Your task to perform on an android device: turn on sleep mode Image 0: 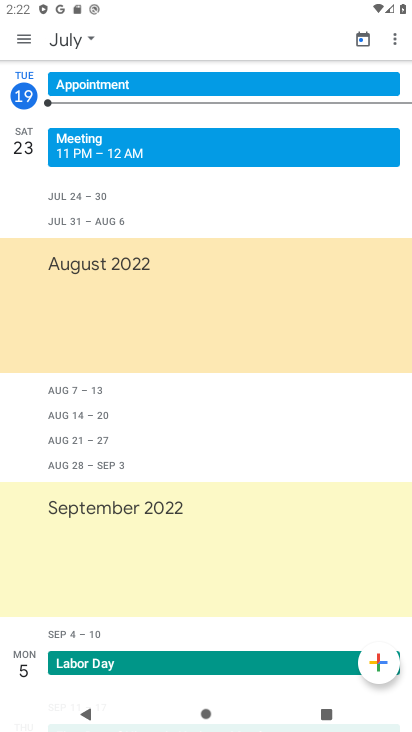
Step 0: press home button
Your task to perform on an android device: turn on sleep mode Image 1: 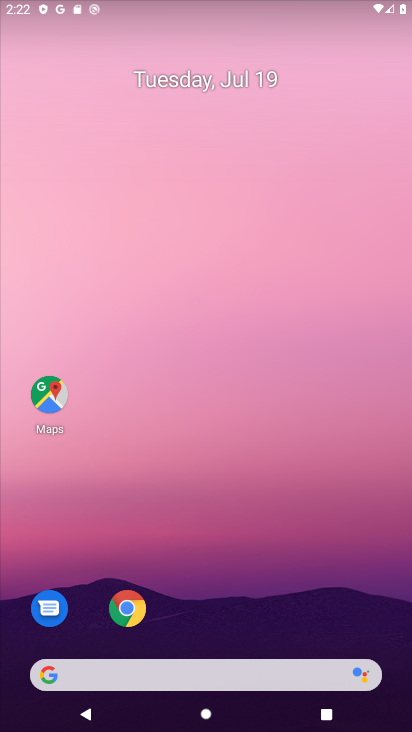
Step 1: drag from (292, 633) to (256, 114)
Your task to perform on an android device: turn on sleep mode Image 2: 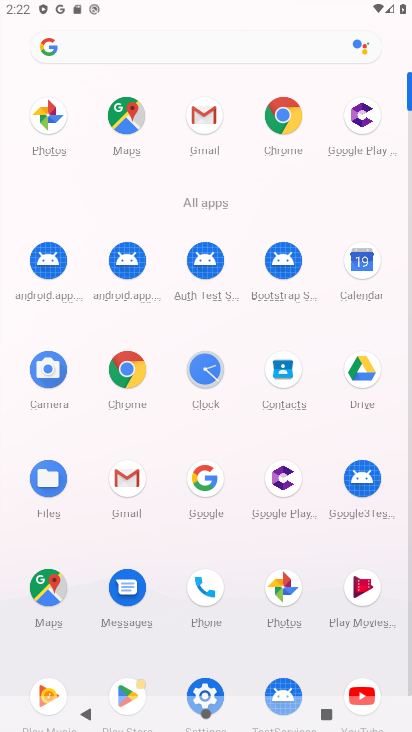
Step 2: click (203, 685)
Your task to perform on an android device: turn on sleep mode Image 3: 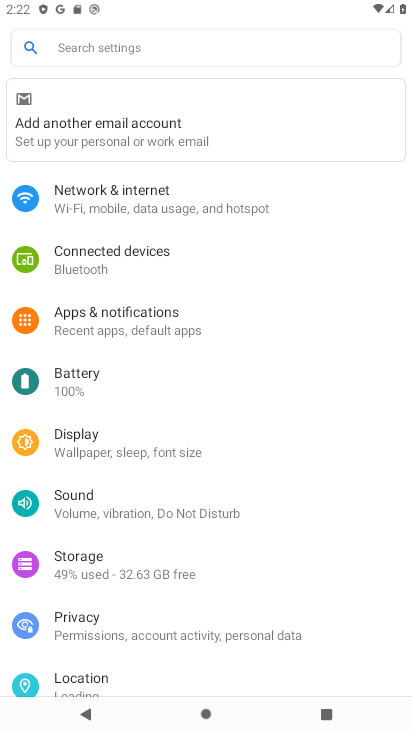
Step 3: click (111, 440)
Your task to perform on an android device: turn on sleep mode Image 4: 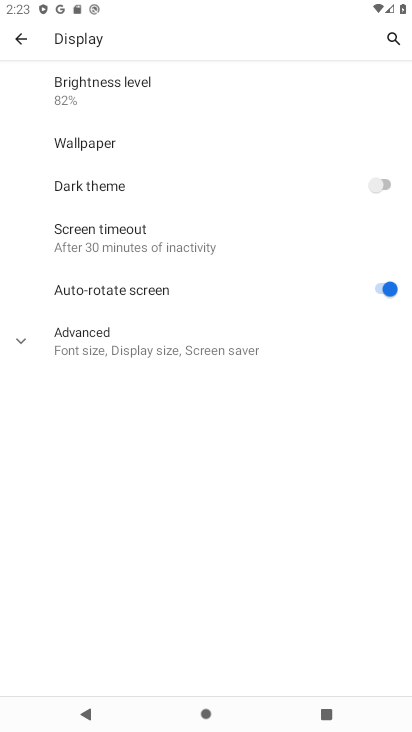
Step 4: click (146, 240)
Your task to perform on an android device: turn on sleep mode Image 5: 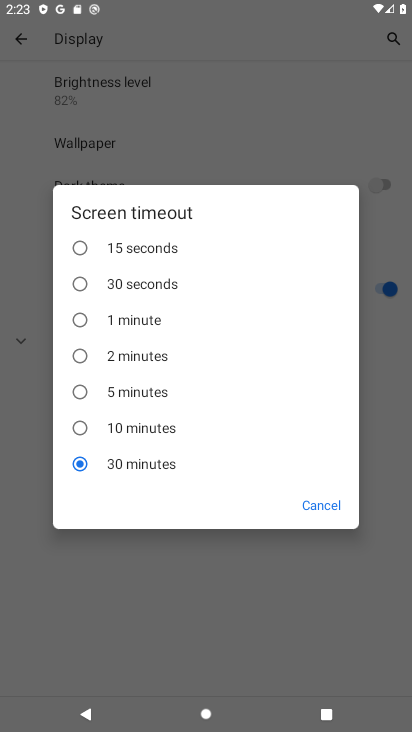
Step 5: task complete